Your task to perform on an android device: Go to Maps Image 0: 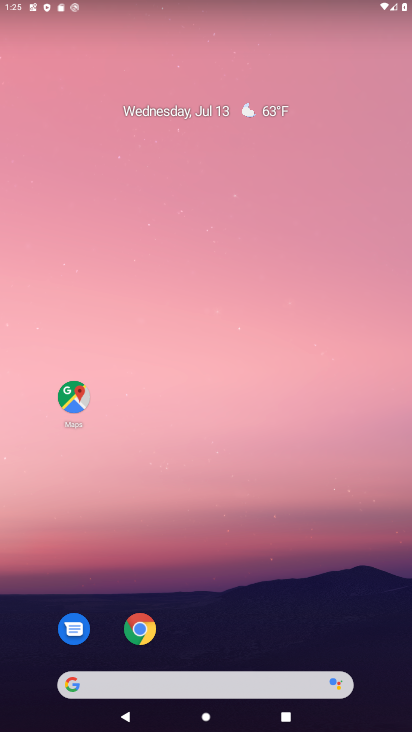
Step 0: click (272, 96)
Your task to perform on an android device: Go to Maps Image 1: 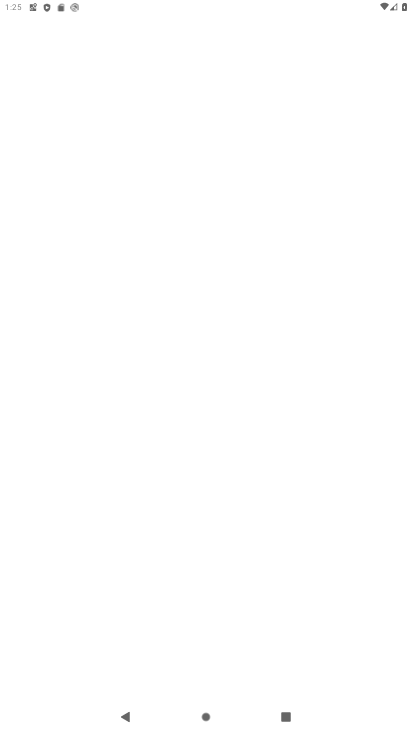
Step 1: drag from (168, 626) to (186, 244)
Your task to perform on an android device: Go to Maps Image 2: 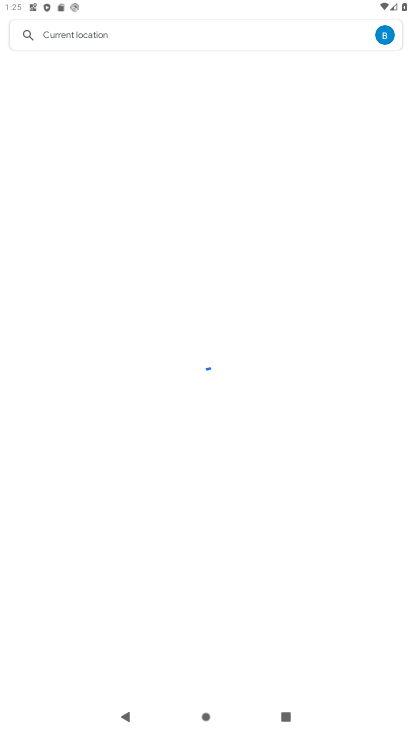
Step 2: press home button
Your task to perform on an android device: Go to Maps Image 3: 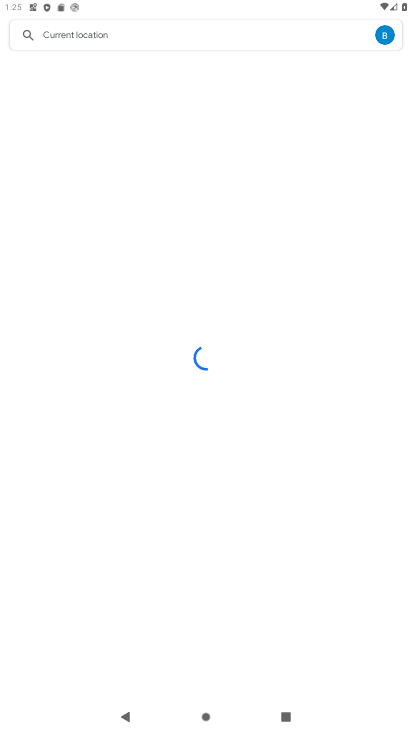
Step 3: drag from (187, 511) to (217, 193)
Your task to perform on an android device: Go to Maps Image 4: 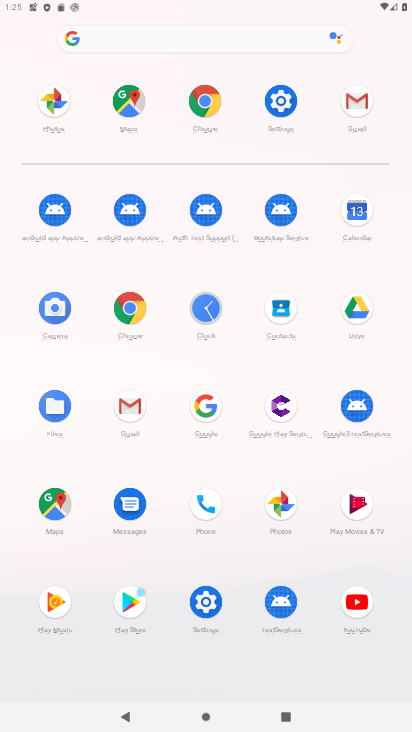
Step 4: click (51, 508)
Your task to perform on an android device: Go to Maps Image 5: 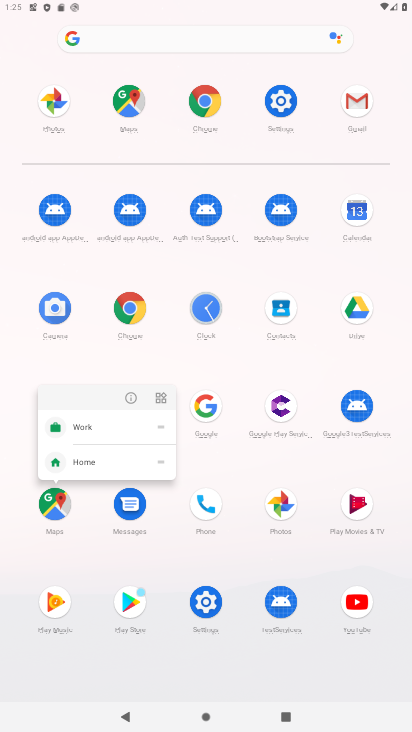
Step 5: click (127, 398)
Your task to perform on an android device: Go to Maps Image 6: 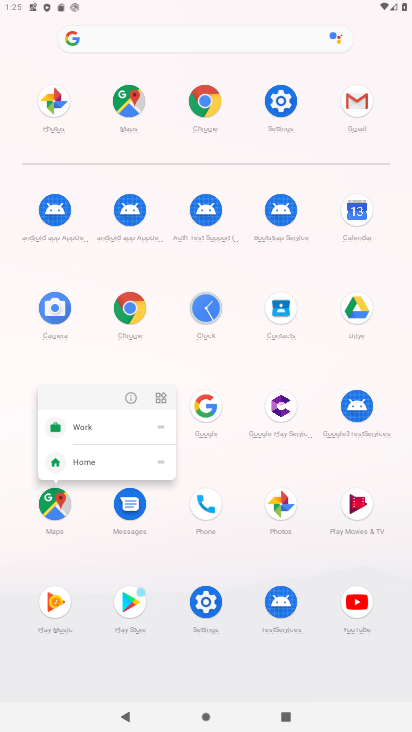
Step 6: click (127, 398)
Your task to perform on an android device: Go to Maps Image 7: 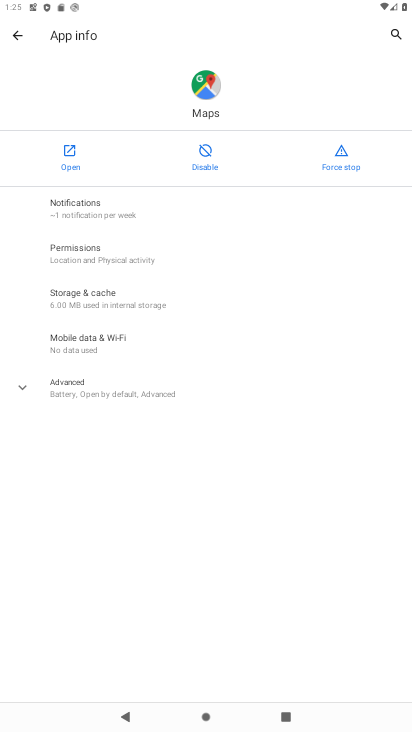
Step 7: click (71, 149)
Your task to perform on an android device: Go to Maps Image 8: 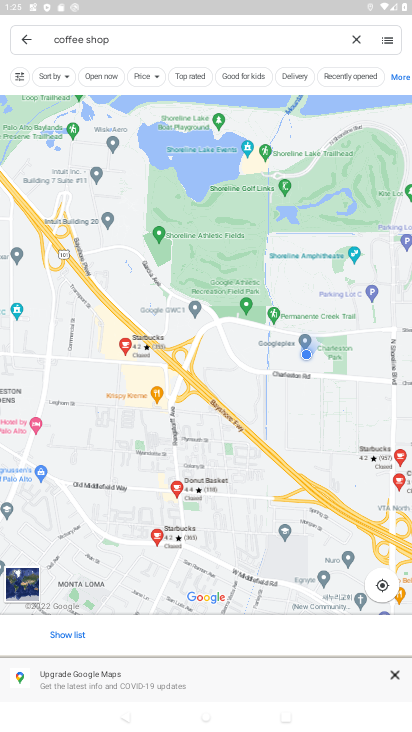
Step 8: task complete